Your task to perform on an android device: Clear the cart on target.com. Search for "acer nitro" on target.com, select the first entry, and add it to the cart. Image 0: 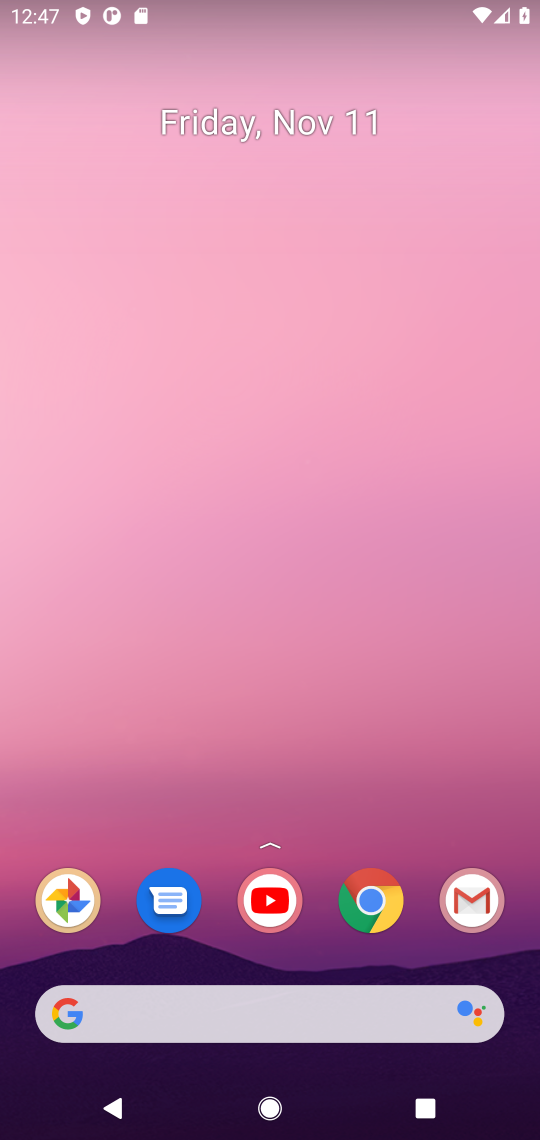
Step 0: click (372, 900)
Your task to perform on an android device: Clear the cart on target.com. Search for "acer nitro" on target.com, select the first entry, and add it to the cart. Image 1: 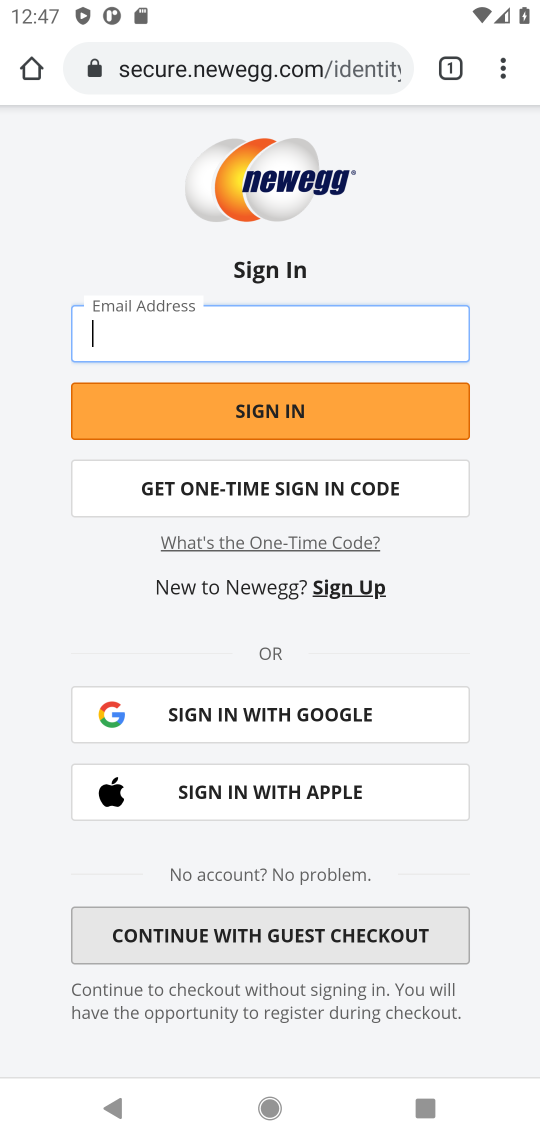
Step 1: click (309, 74)
Your task to perform on an android device: Clear the cart on target.com. Search for "acer nitro" on target.com, select the first entry, and add it to the cart. Image 2: 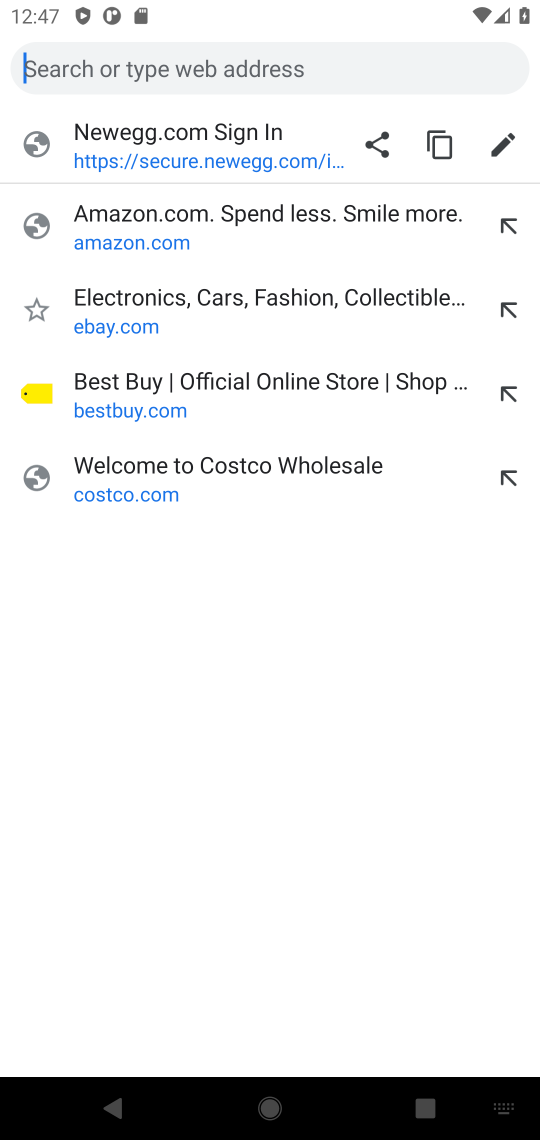
Step 2: type "target.com"
Your task to perform on an android device: Clear the cart on target.com. Search for "acer nitro" on target.com, select the first entry, and add it to the cart. Image 3: 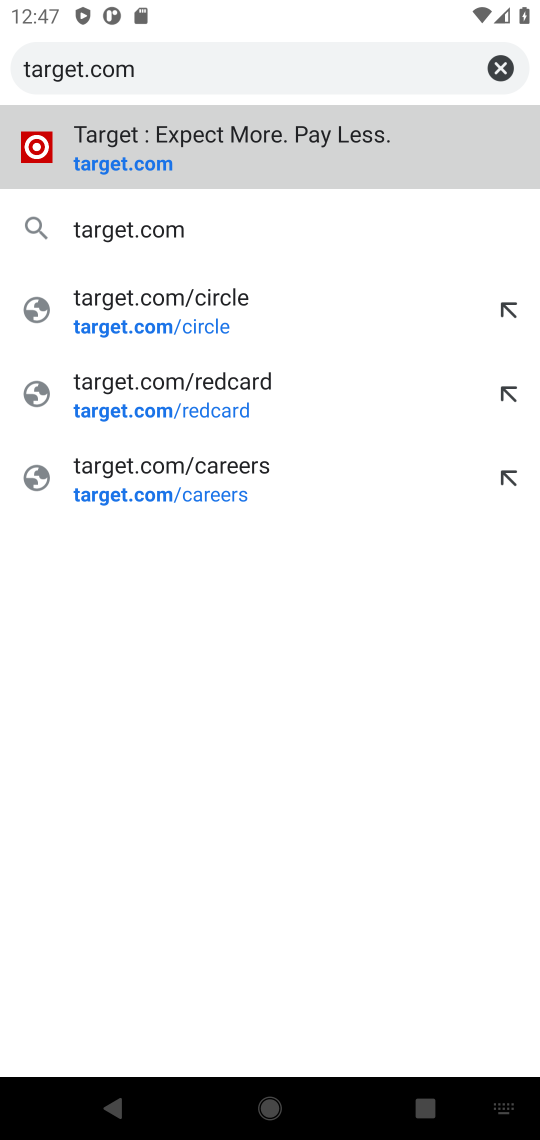
Step 3: press enter
Your task to perform on an android device: Clear the cart on target.com. Search for "acer nitro" on target.com, select the first entry, and add it to the cart. Image 4: 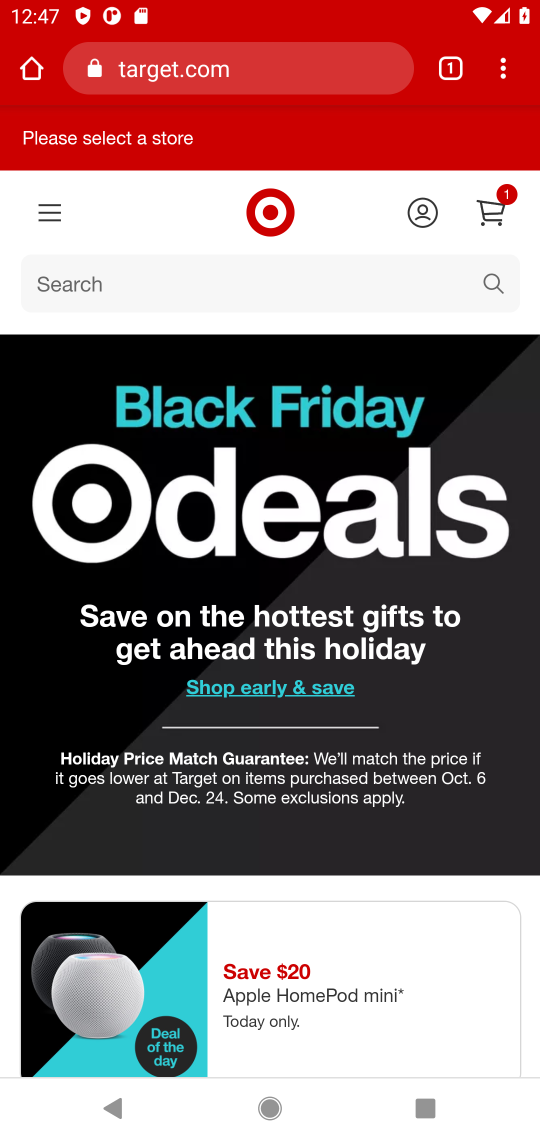
Step 4: click (88, 274)
Your task to perform on an android device: Clear the cart on target.com. Search for "acer nitro" on target.com, select the first entry, and add it to the cart. Image 5: 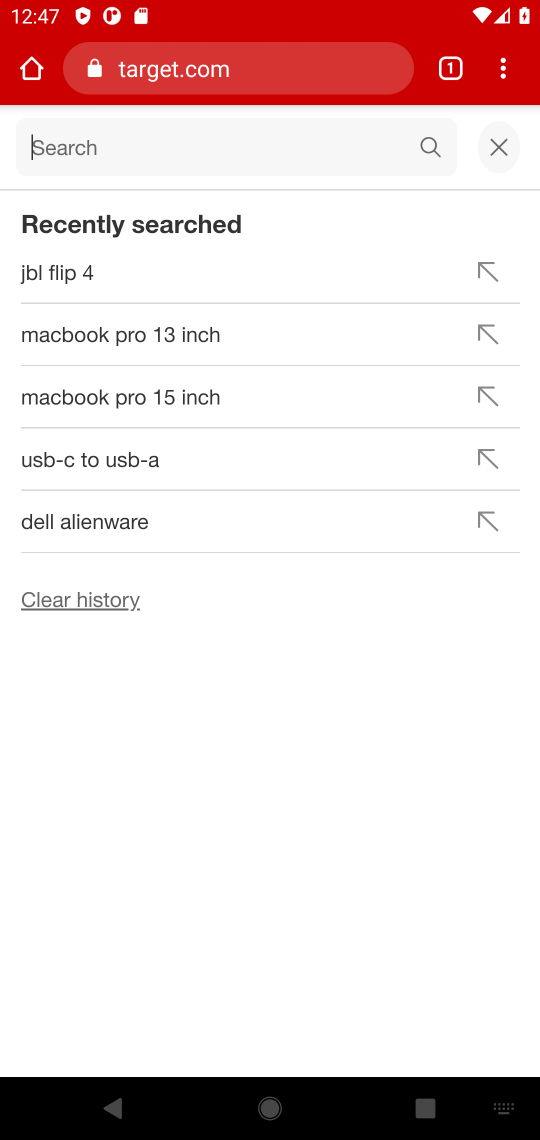
Step 5: type "acer nitro"
Your task to perform on an android device: Clear the cart on target.com. Search for "acer nitro" on target.com, select the first entry, and add it to the cart. Image 6: 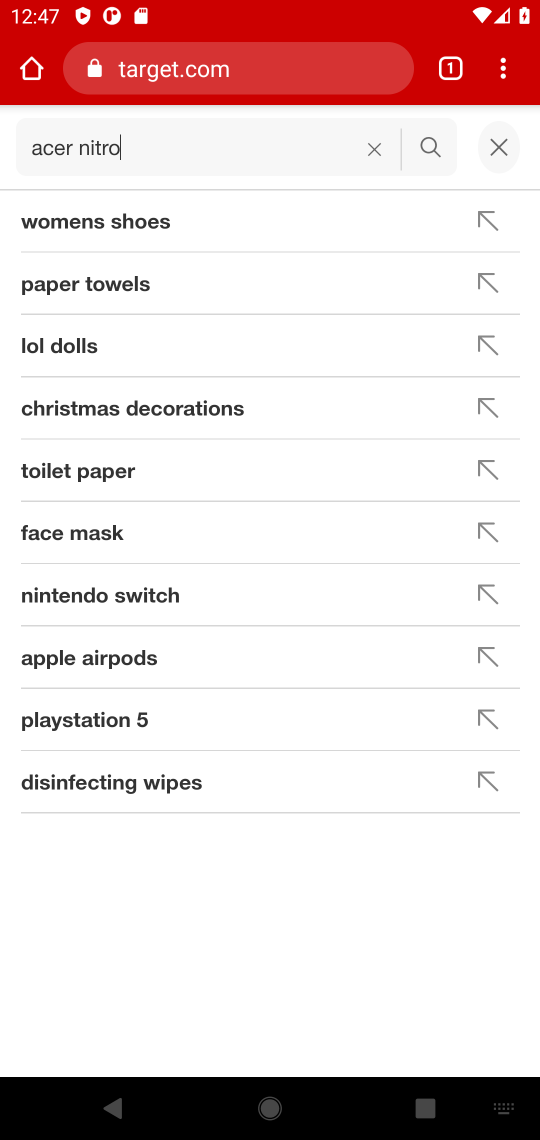
Step 6: press enter
Your task to perform on an android device: Clear the cart on target.com. Search for "acer nitro" on target.com, select the first entry, and add it to the cart. Image 7: 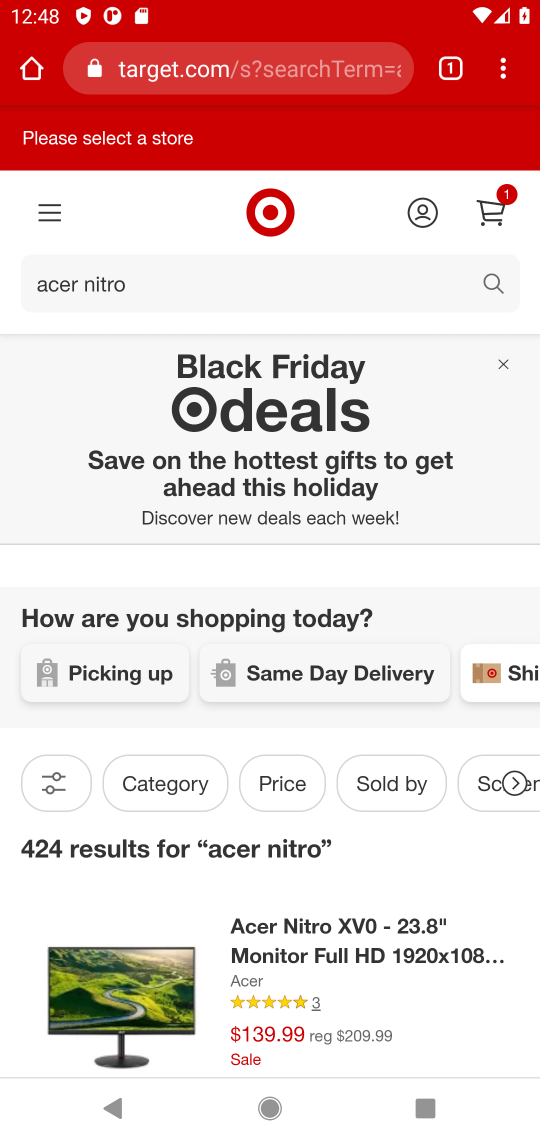
Step 7: click (306, 967)
Your task to perform on an android device: Clear the cart on target.com. Search for "acer nitro" on target.com, select the first entry, and add it to the cart. Image 8: 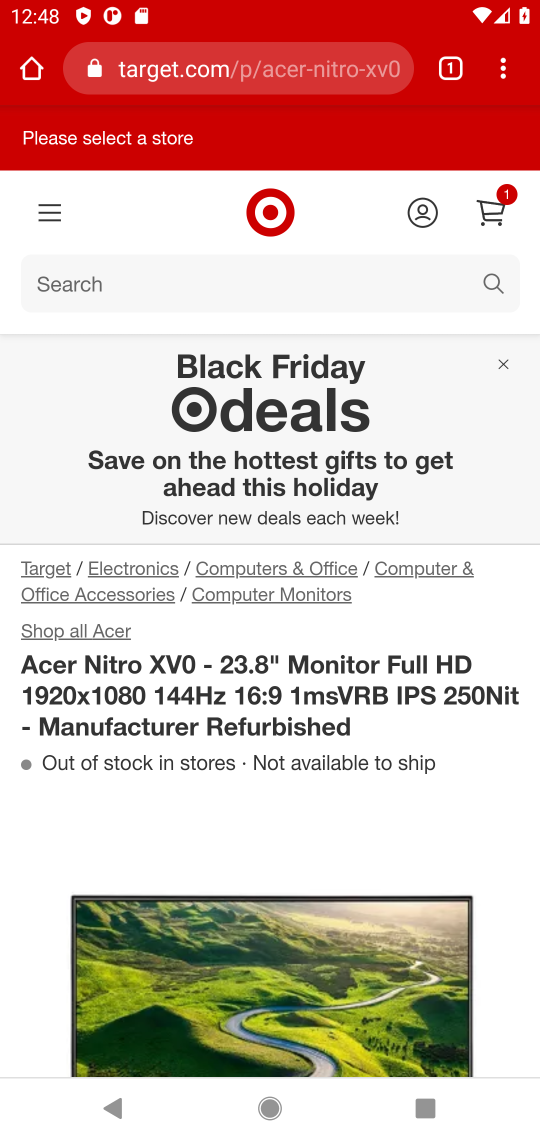
Step 8: drag from (51, 996) to (438, 341)
Your task to perform on an android device: Clear the cart on target.com. Search for "acer nitro" on target.com, select the first entry, and add it to the cart. Image 9: 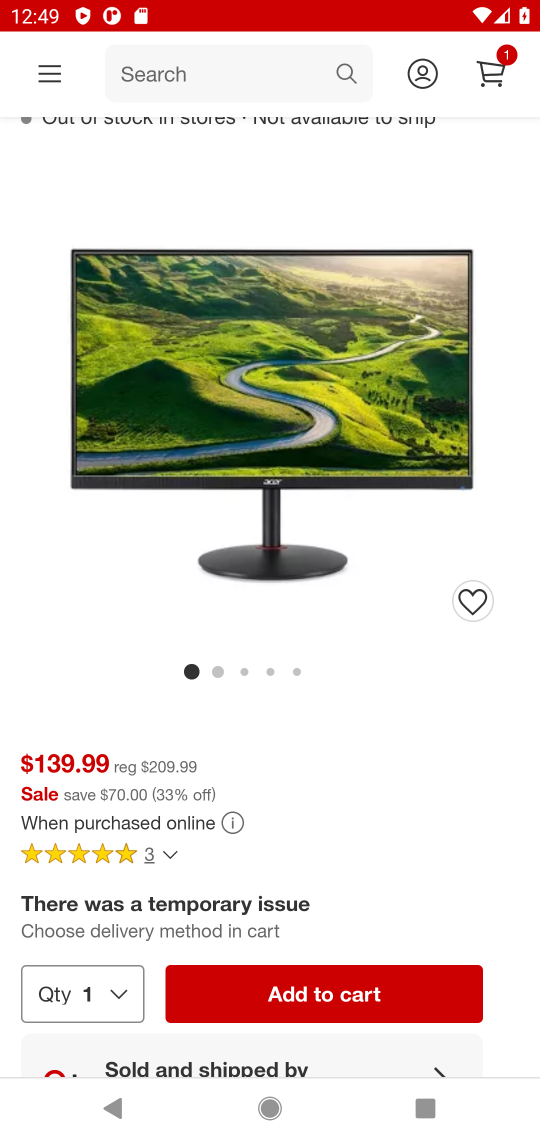
Step 9: click (301, 997)
Your task to perform on an android device: Clear the cart on target.com. Search for "acer nitro" on target.com, select the first entry, and add it to the cart. Image 10: 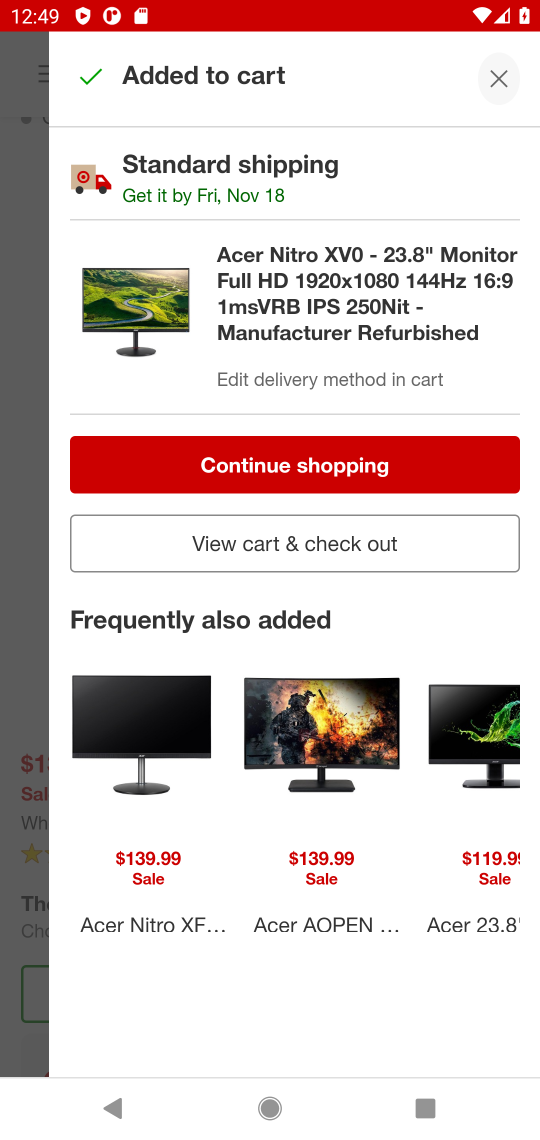
Step 10: click (326, 544)
Your task to perform on an android device: Clear the cart on target.com. Search for "acer nitro" on target.com, select the first entry, and add it to the cart. Image 11: 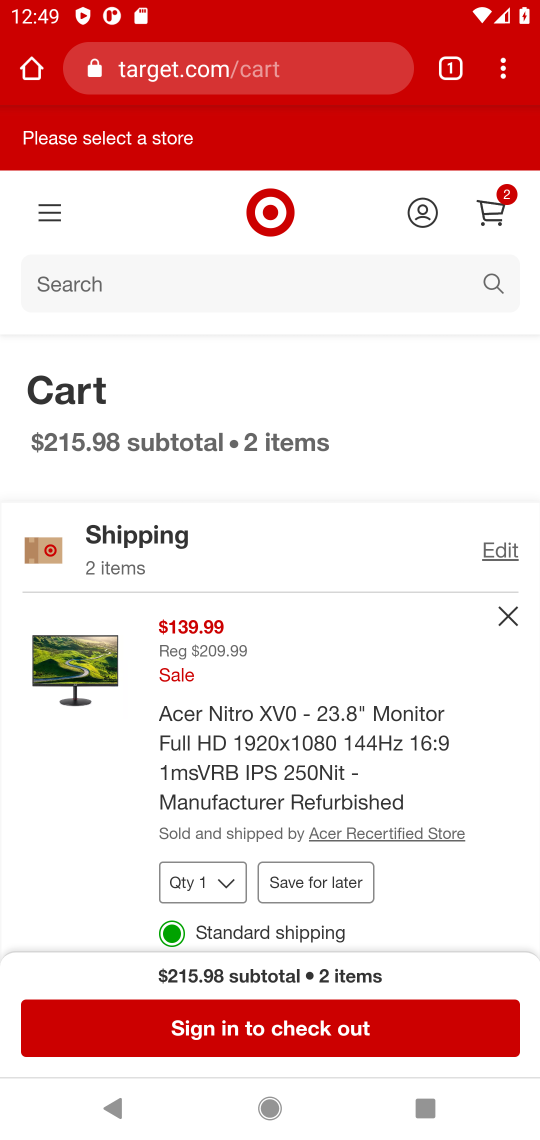
Step 11: drag from (272, 788) to (395, 298)
Your task to perform on an android device: Clear the cart on target.com. Search for "acer nitro" on target.com, select the first entry, and add it to the cart. Image 12: 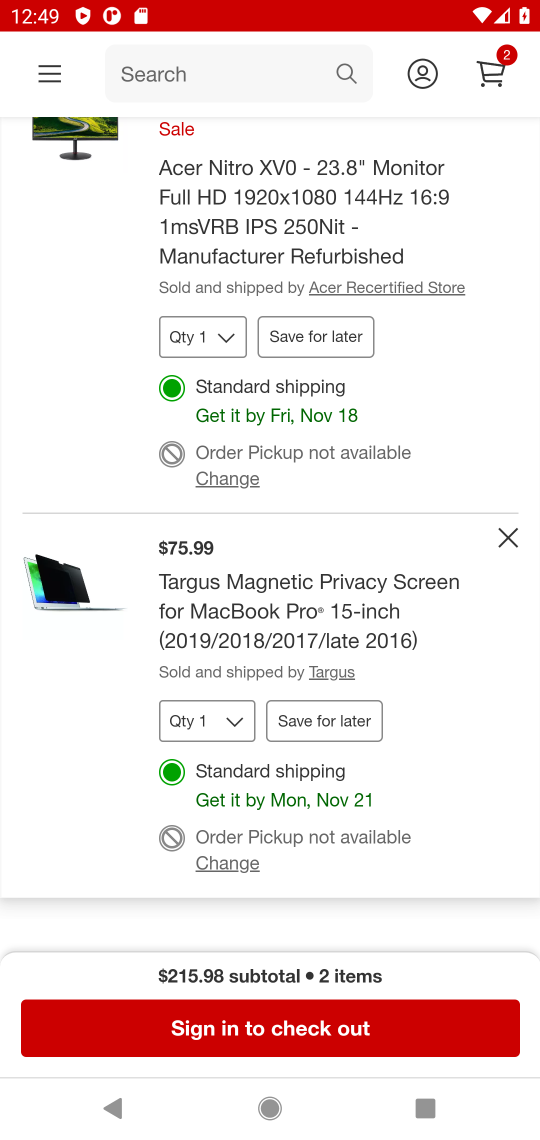
Step 12: click (504, 537)
Your task to perform on an android device: Clear the cart on target.com. Search for "acer nitro" on target.com, select the first entry, and add it to the cart. Image 13: 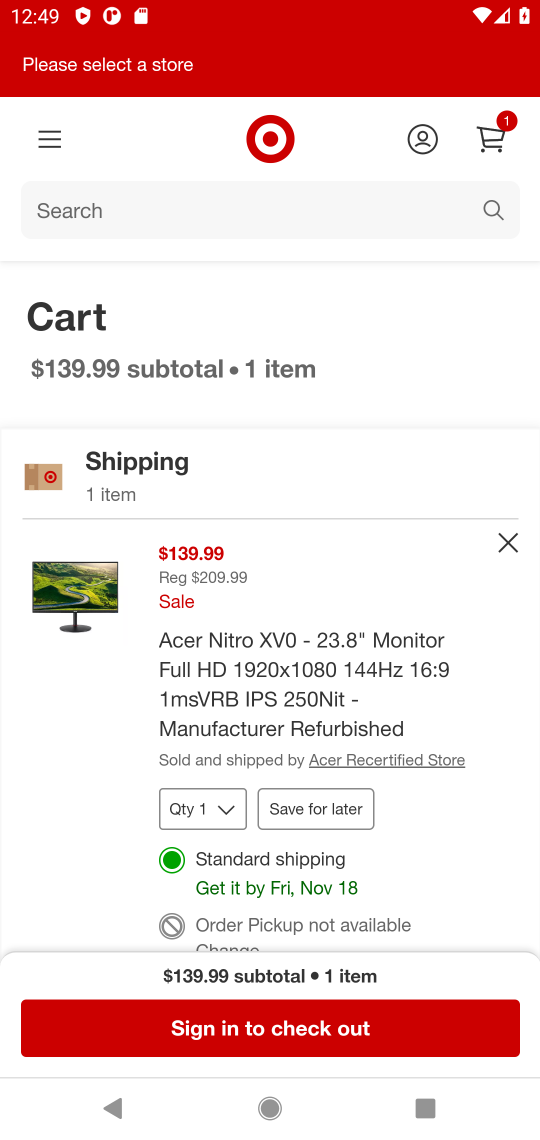
Step 13: task complete